Your task to perform on an android device: toggle show notifications on the lock screen Image 0: 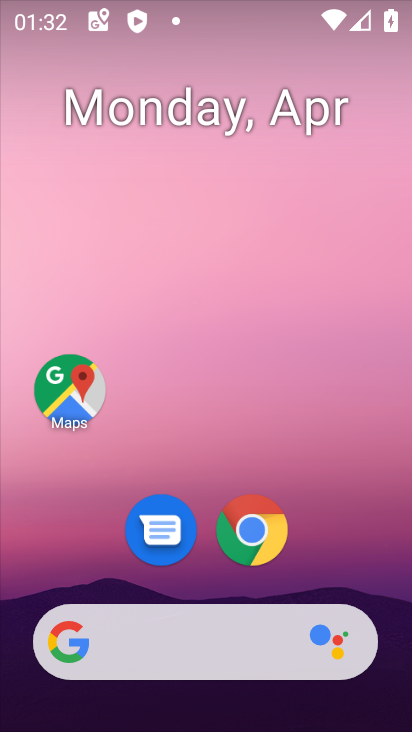
Step 0: drag from (339, 563) to (361, 60)
Your task to perform on an android device: toggle show notifications on the lock screen Image 1: 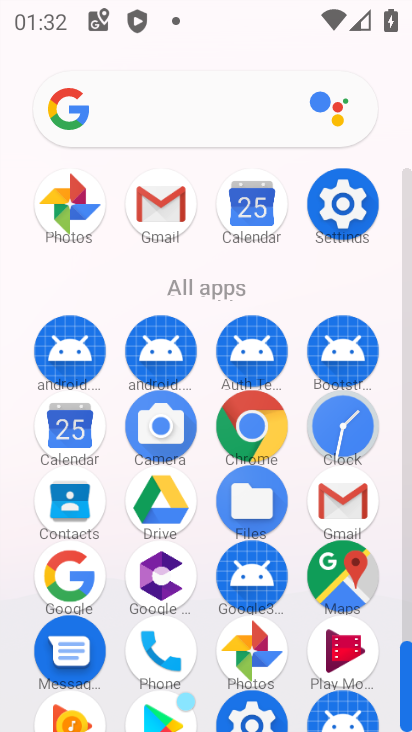
Step 1: click (344, 197)
Your task to perform on an android device: toggle show notifications on the lock screen Image 2: 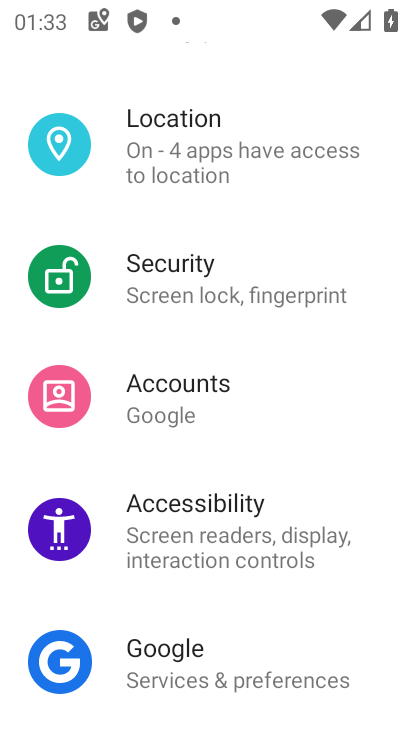
Step 2: drag from (218, 210) to (247, 658)
Your task to perform on an android device: toggle show notifications on the lock screen Image 3: 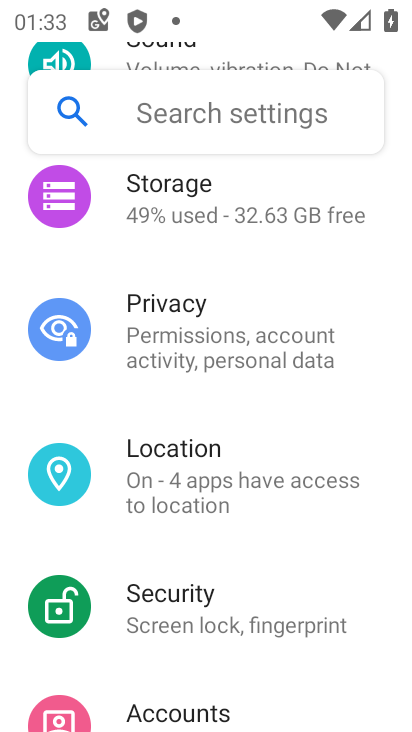
Step 3: drag from (198, 262) to (165, 710)
Your task to perform on an android device: toggle show notifications on the lock screen Image 4: 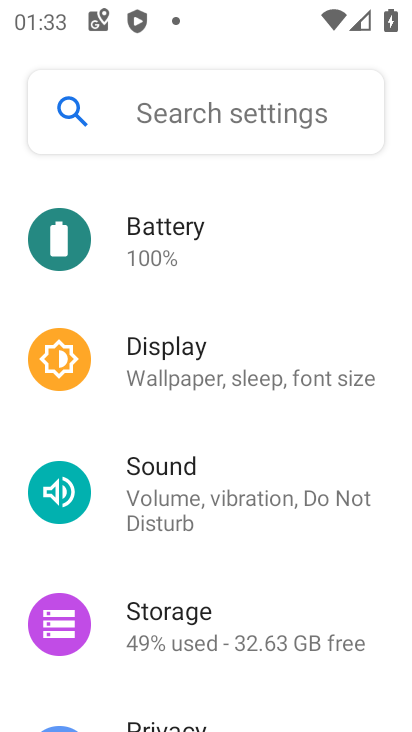
Step 4: drag from (252, 285) to (142, 724)
Your task to perform on an android device: toggle show notifications on the lock screen Image 5: 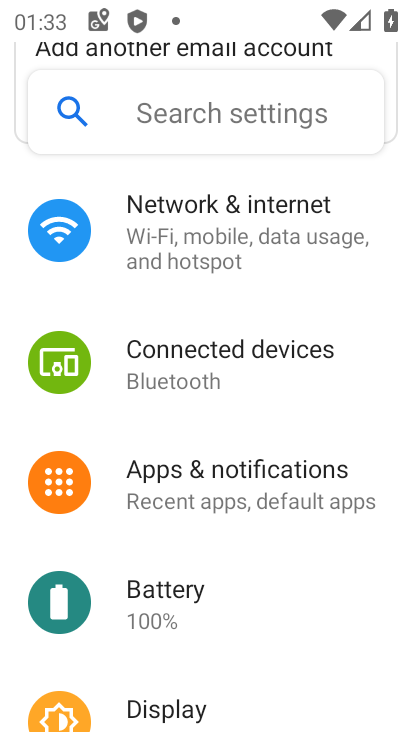
Step 5: click (217, 465)
Your task to perform on an android device: toggle show notifications on the lock screen Image 6: 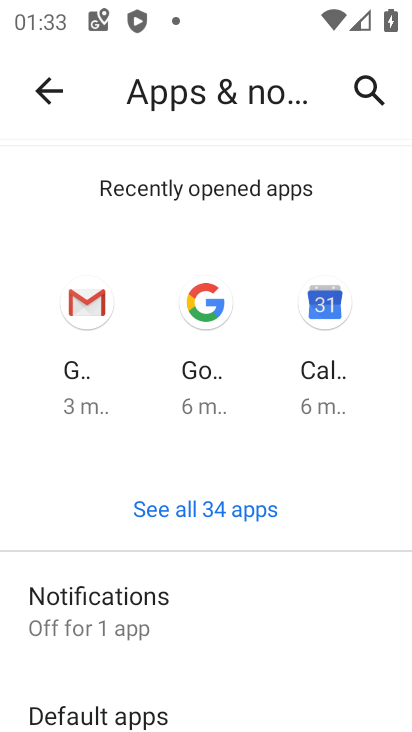
Step 6: click (135, 591)
Your task to perform on an android device: toggle show notifications on the lock screen Image 7: 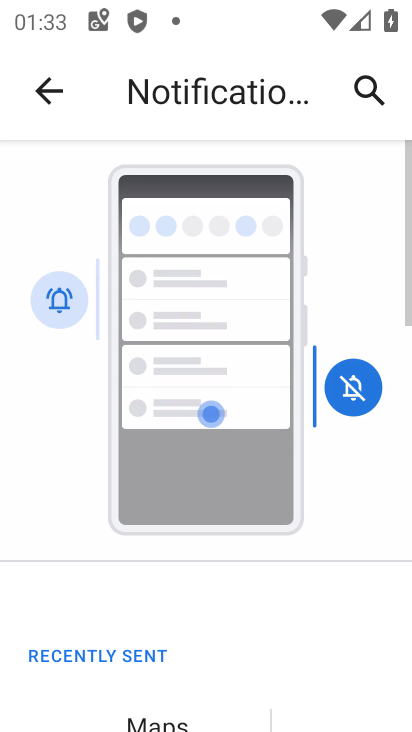
Step 7: drag from (320, 590) to (317, 117)
Your task to perform on an android device: toggle show notifications on the lock screen Image 8: 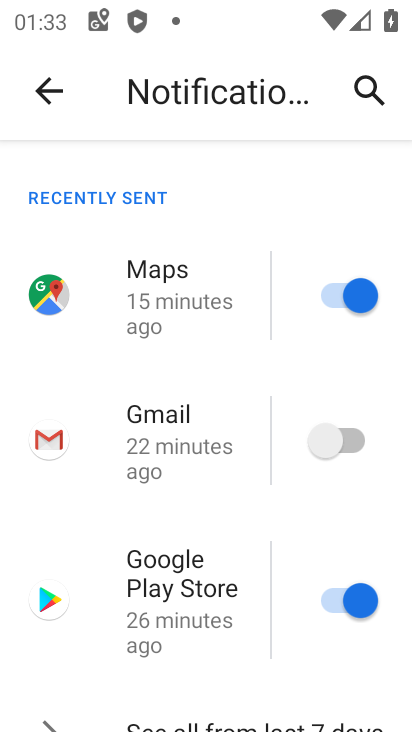
Step 8: drag from (202, 558) to (164, 292)
Your task to perform on an android device: toggle show notifications on the lock screen Image 9: 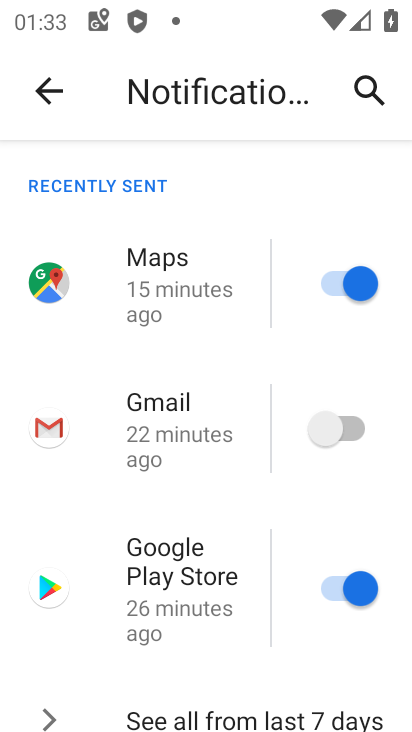
Step 9: drag from (194, 652) to (179, 292)
Your task to perform on an android device: toggle show notifications on the lock screen Image 10: 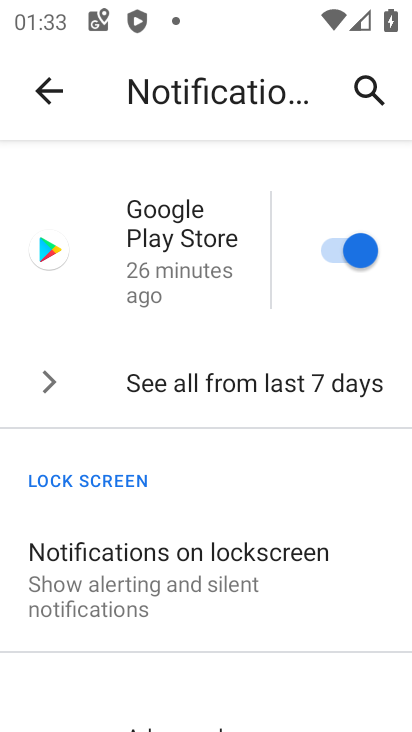
Step 10: click (197, 544)
Your task to perform on an android device: toggle show notifications on the lock screen Image 11: 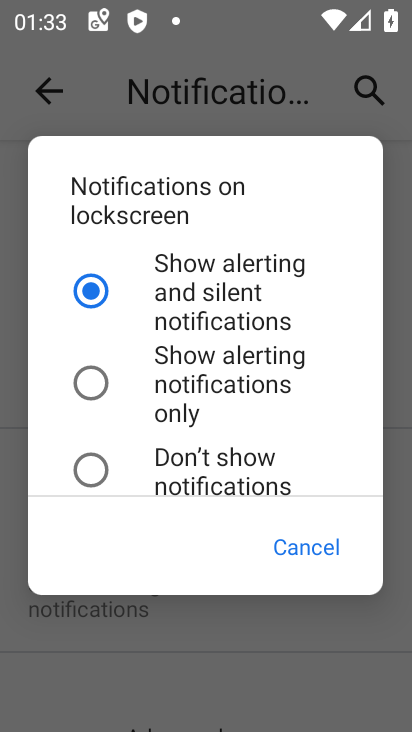
Step 11: click (86, 471)
Your task to perform on an android device: toggle show notifications on the lock screen Image 12: 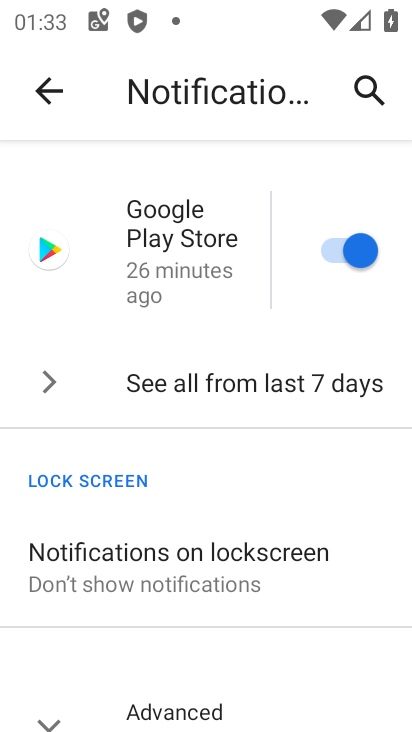
Step 12: task complete